Your task to perform on an android device: Open accessibility settings Image 0: 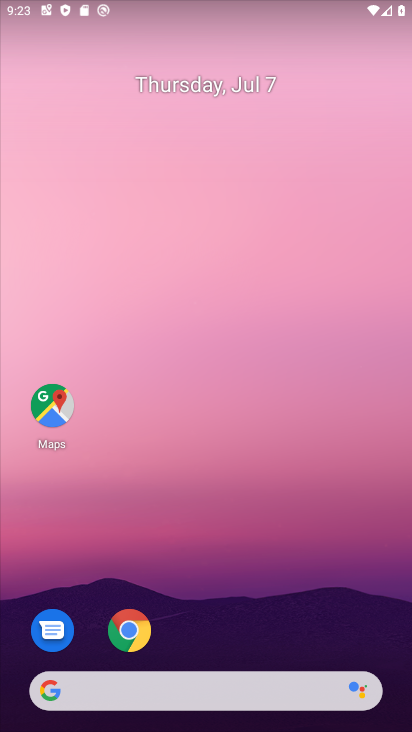
Step 0: drag from (200, 678) to (178, 184)
Your task to perform on an android device: Open accessibility settings Image 1: 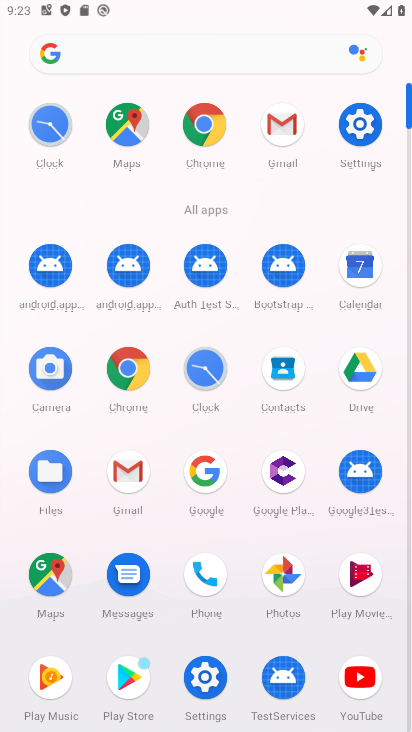
Step 1: click (366, 134)
Your task to perform on an android device: Open accessibility settings Image 2: 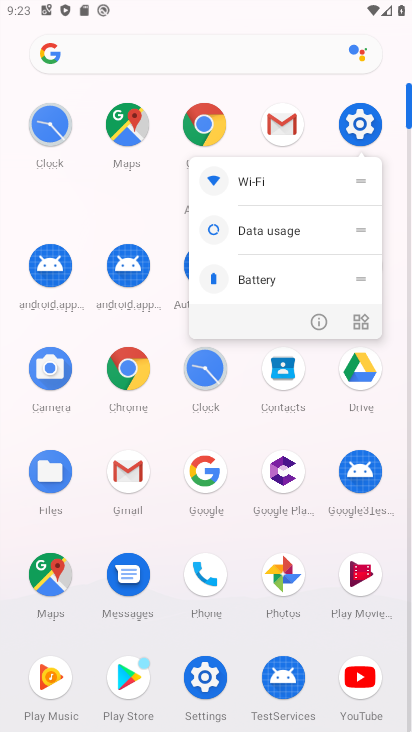
Step 2: click (366, 134)
Your task to perform on an android device: Open accessibility settings Image 3: 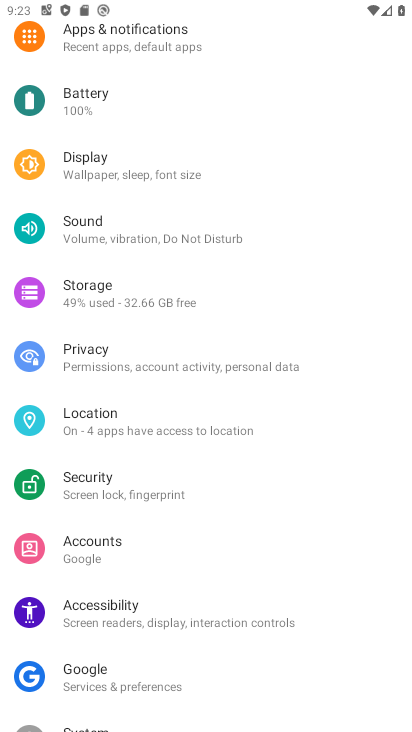
Step 3: click (107, 615)
Your task to perform on an android device: Open accessibility settings Image 4: 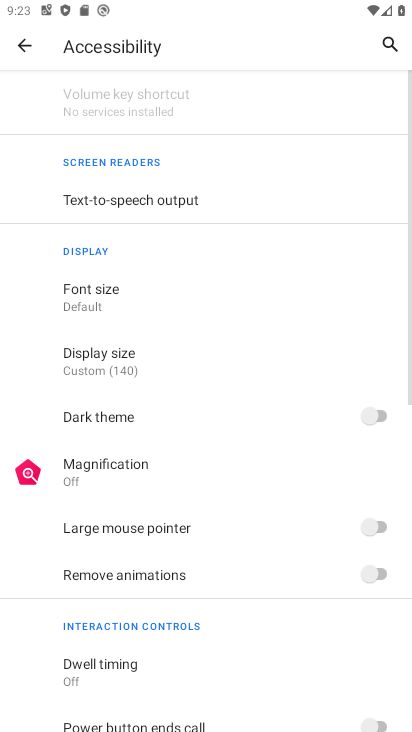
Step 4: task complete